Your task to perform on an android device: search for starred emails in the gmail app Image 0: 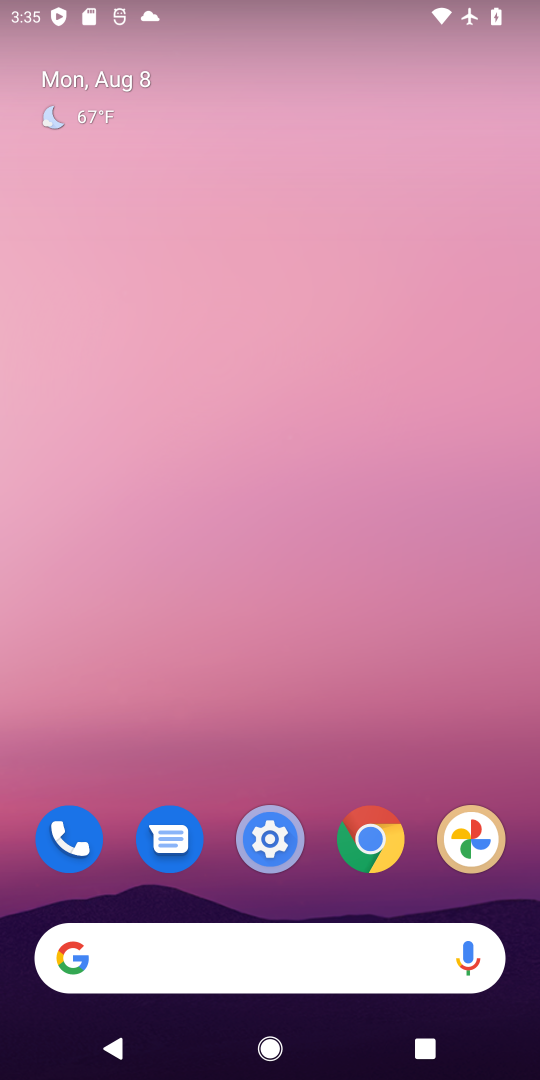
Step 0: press home button
Your task to perform on an android device: search for starred emails in the gmail app Image 1: 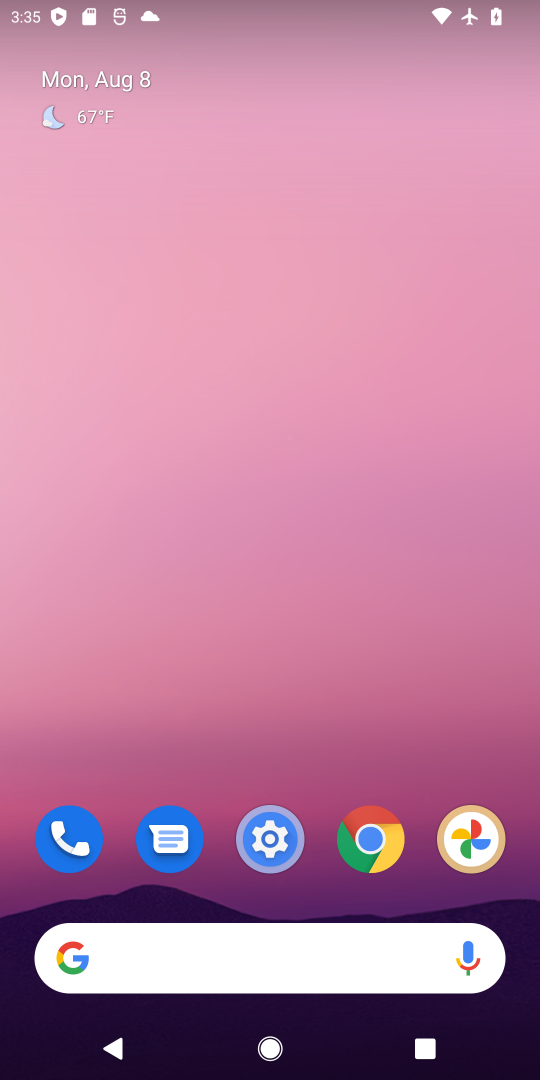
Step 1: drag from (427, 758) to (429, 243)
Your task to perform on an android device: search for starred emails in the gmail app Image 2: 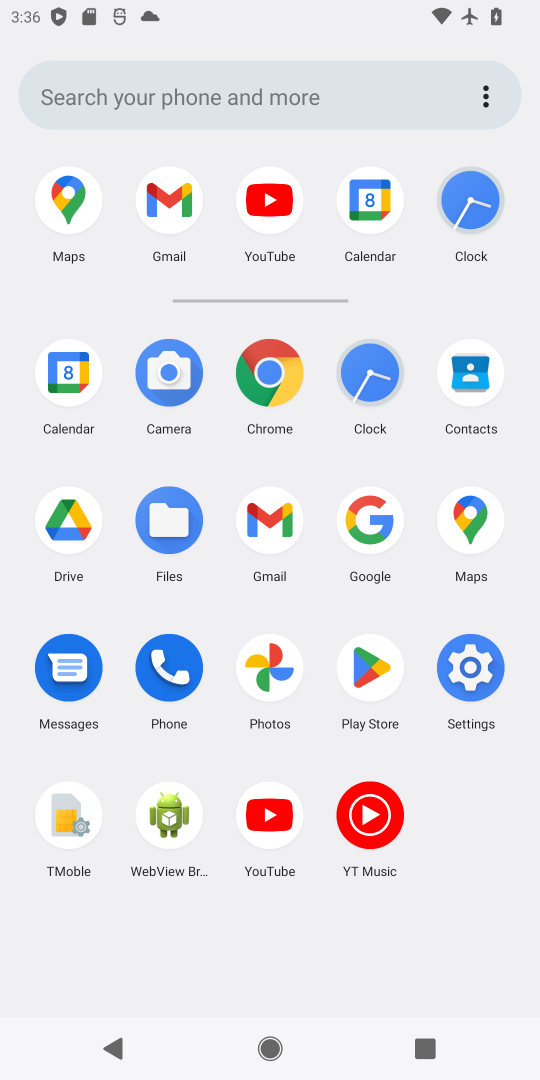
Step 2: click (264, 514)
Your task to perform on an android device: search for starred emails in the gmail app Image 3: 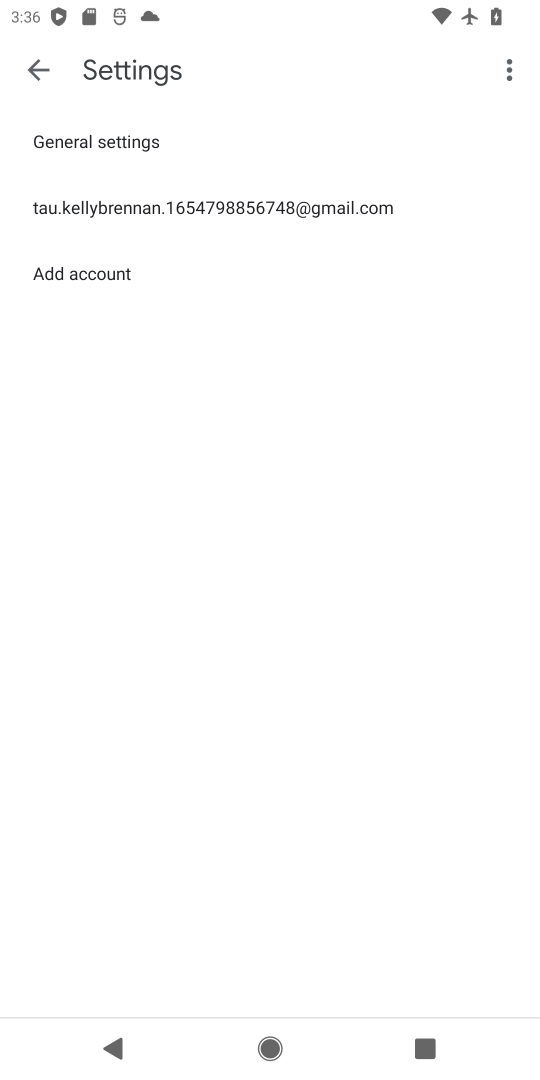
Step 3: press back button
Your task to perform on an android device: search for starred emails in the gmail app Image 4: 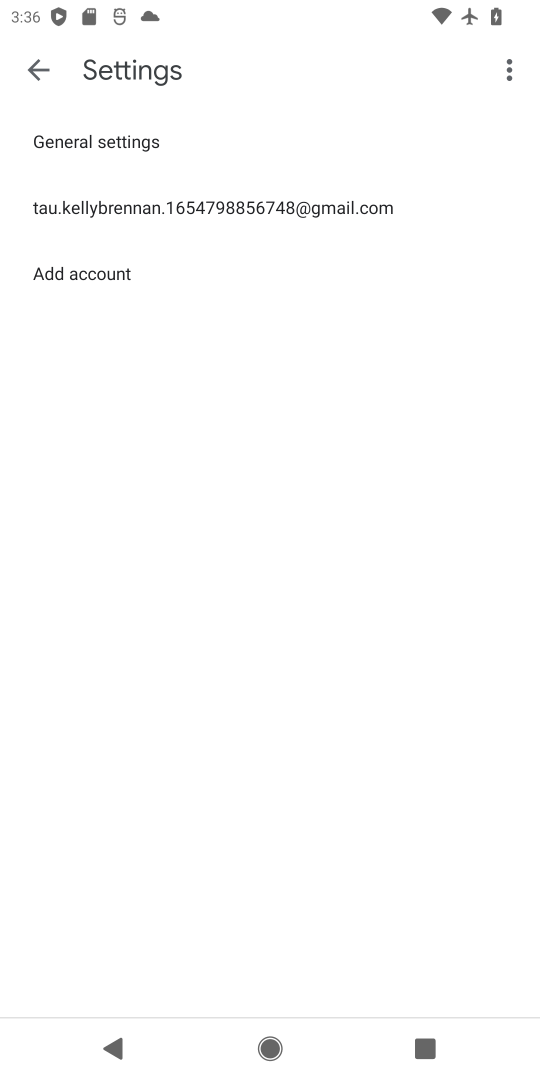
Step 4: press back button
Your task to perform on an android device: search for starred emails in the gmail app Image 5: 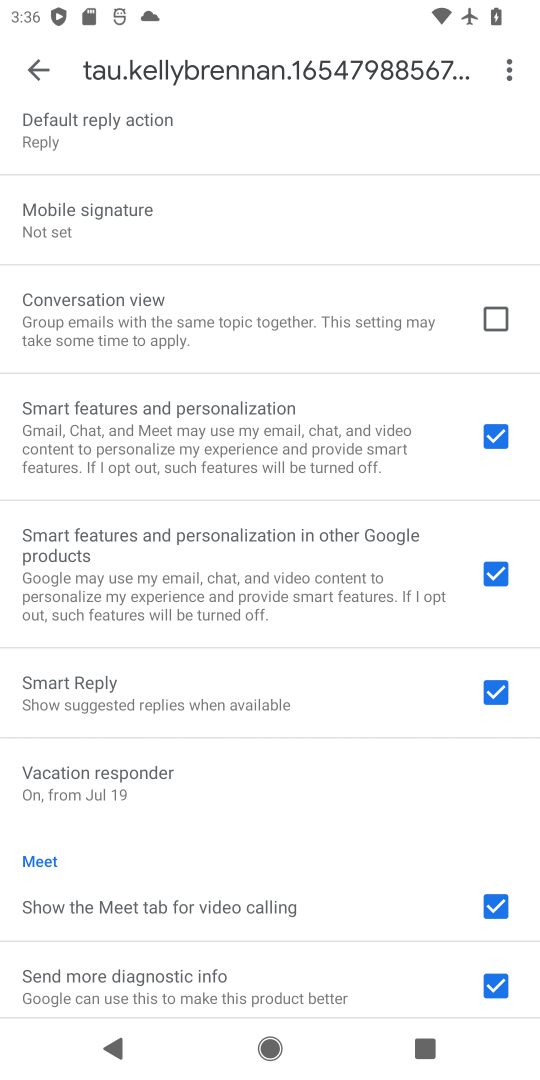
Step 5: press back button
Your task to perform on an android device: search for starred emails in the gmail app Image 6: 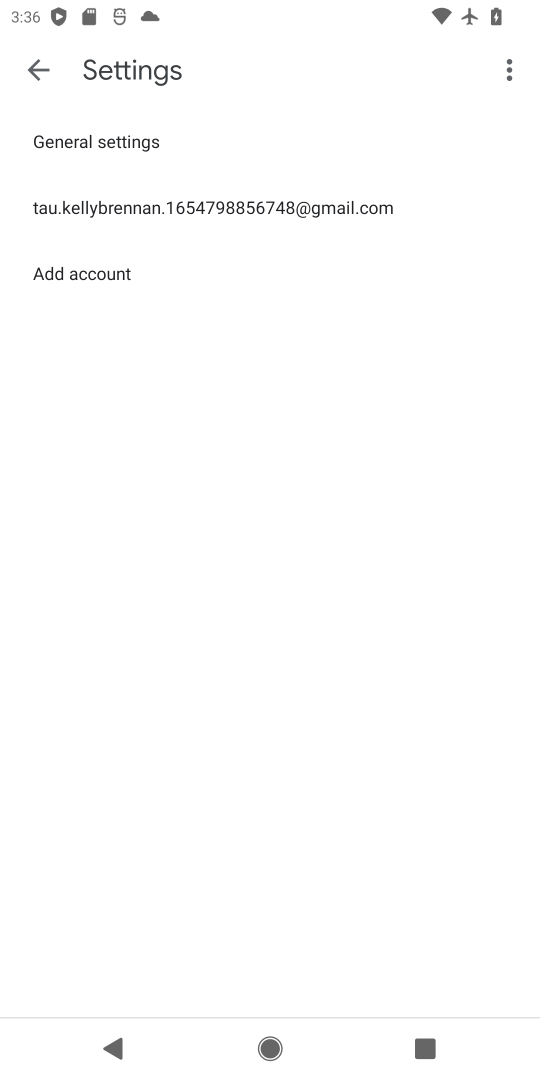
Step 6: press back button
Your task to perform on an android device: search for starred emails in the gmail app Image 7: 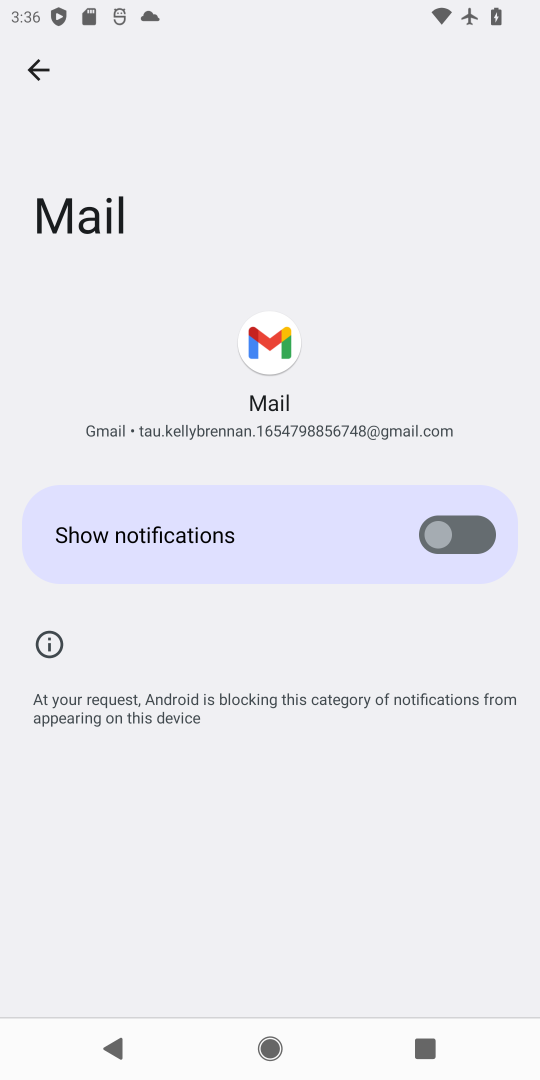
Step 7: press back button
Your task to perform on an android device: search for starred emails in the gmail app Image 8: 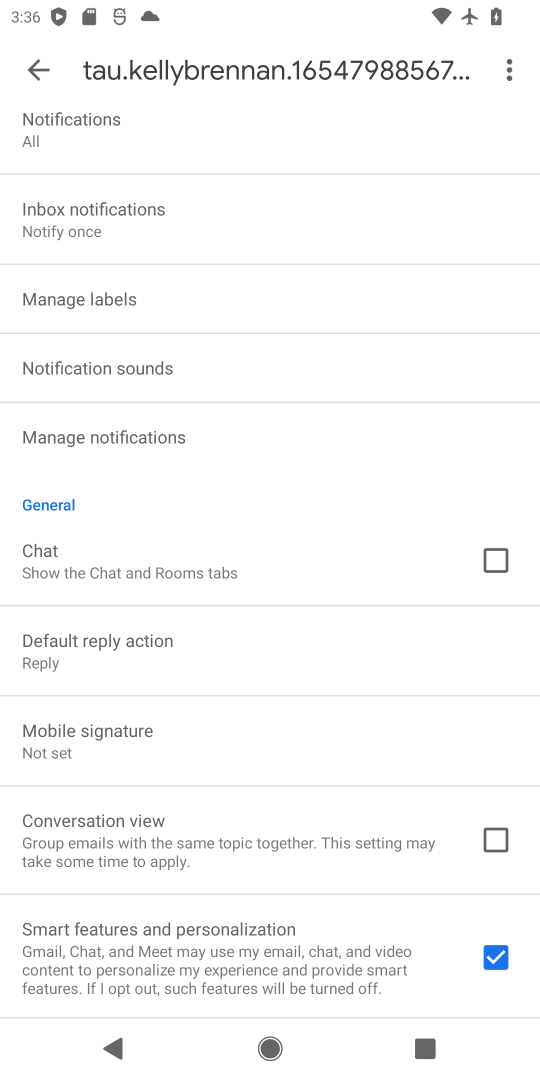
Step 8: press back button
Your task to perform on an android device: search for starred emails in the gmail app Image 9: 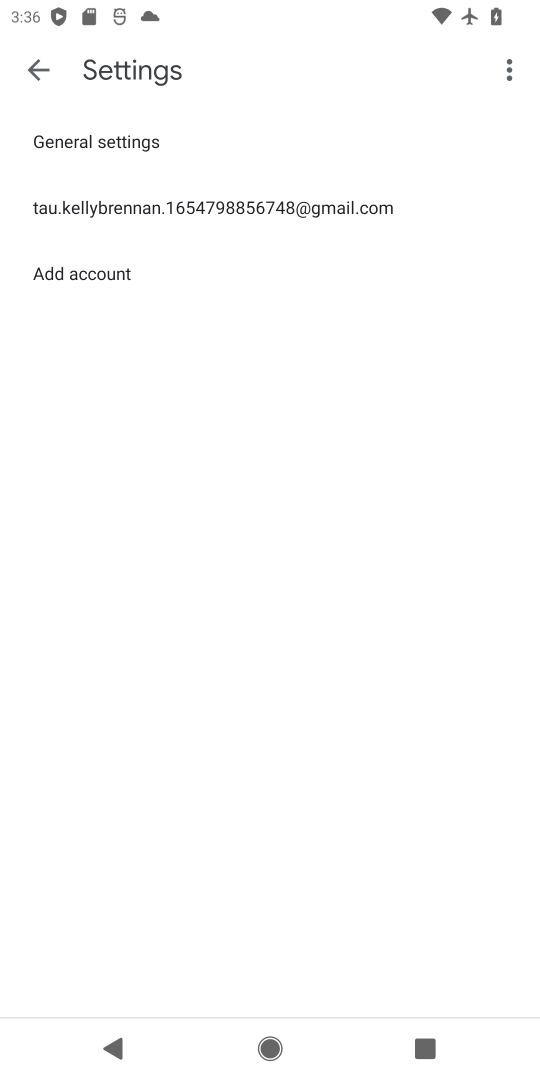
Step 9: press back button
Your task to perform on an android device: search for starred emails in the gmail app Image 10: 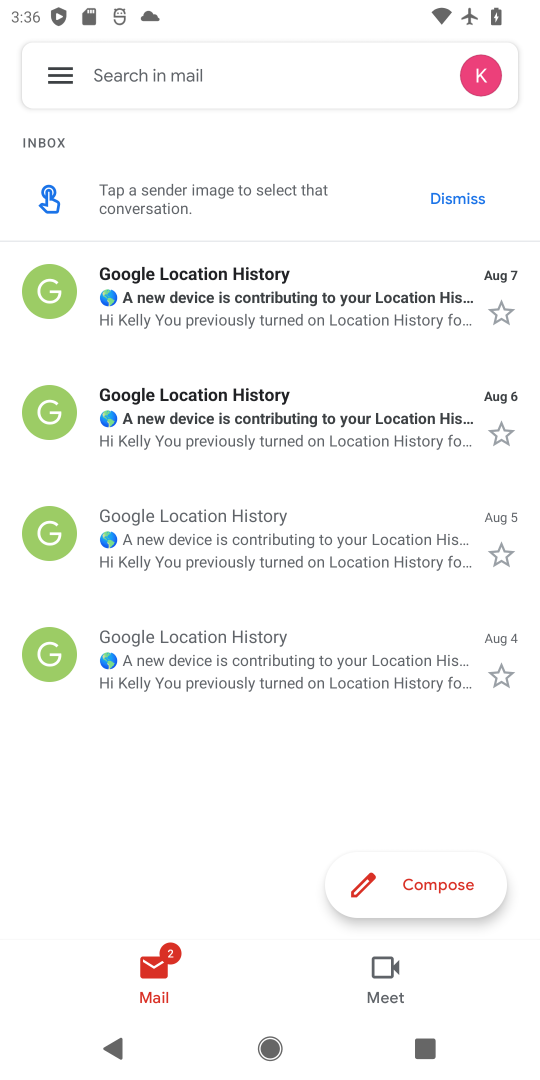
Step 10: click (61, 72)
Your task to perform on an android device: search for starred emails in the gmail app Image 11: 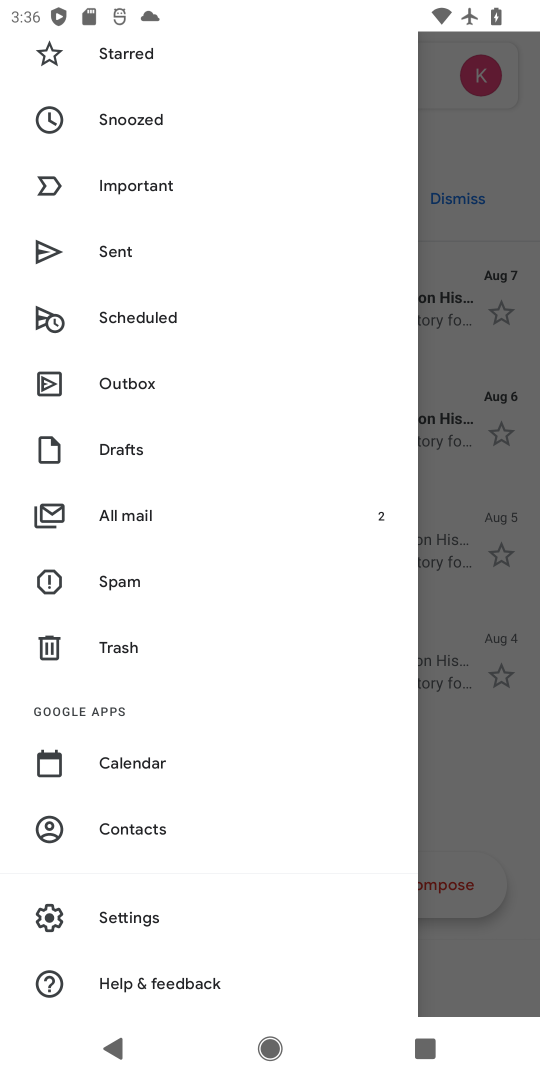
Step 11: drag from (275, 337) to (277, 582)
Your task to perform on an android device: search for starred emails in the gmail app Image 12: 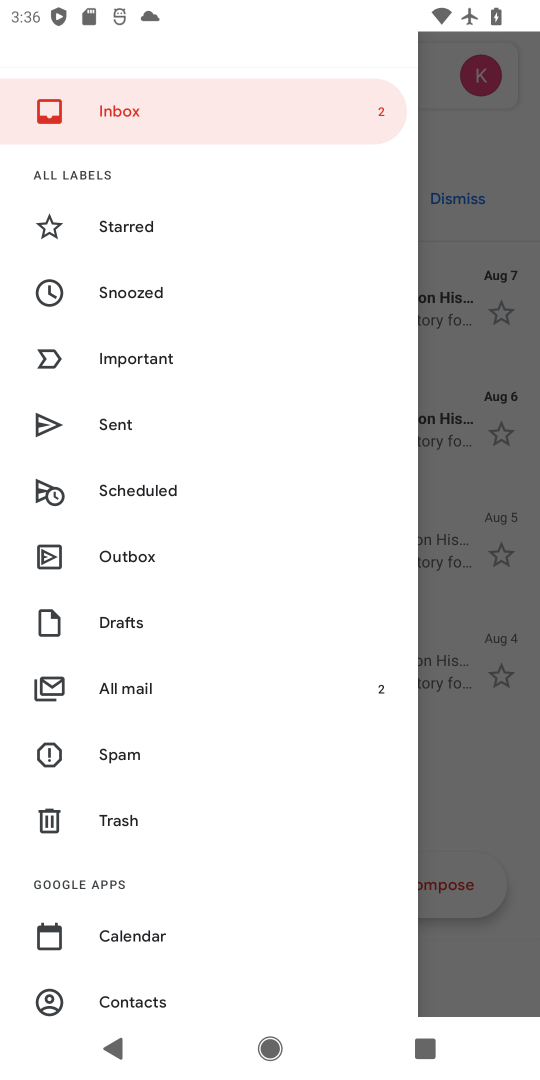
Step 12: drag from (278, 238) to (269, 499)
Your task to perform on an android device: search for starred emails in the gmail app Image 13: 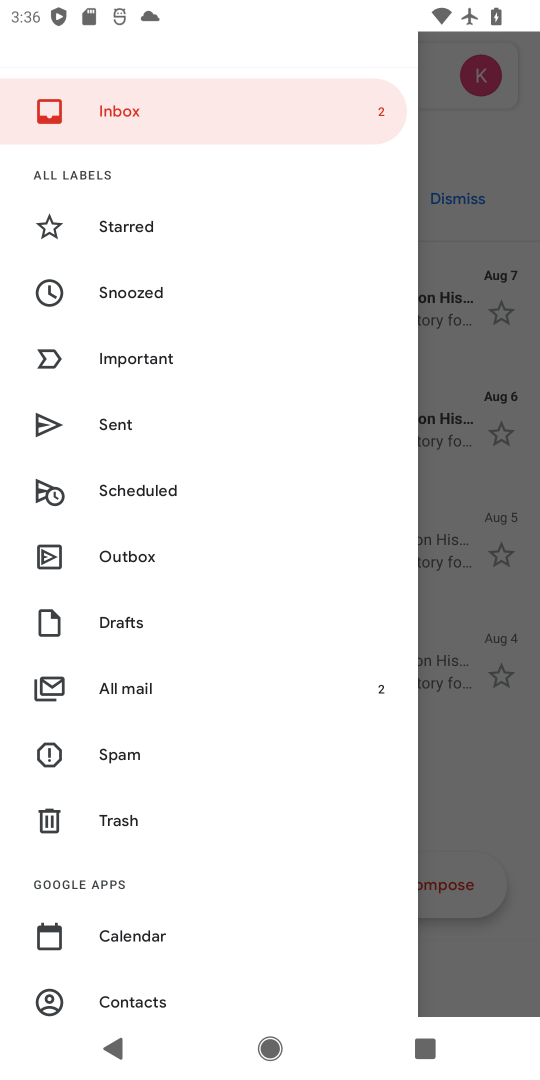
Step 13: click (149, 222)
Your task to perform on an android device: search for starred emails in the gmail app Image 14: 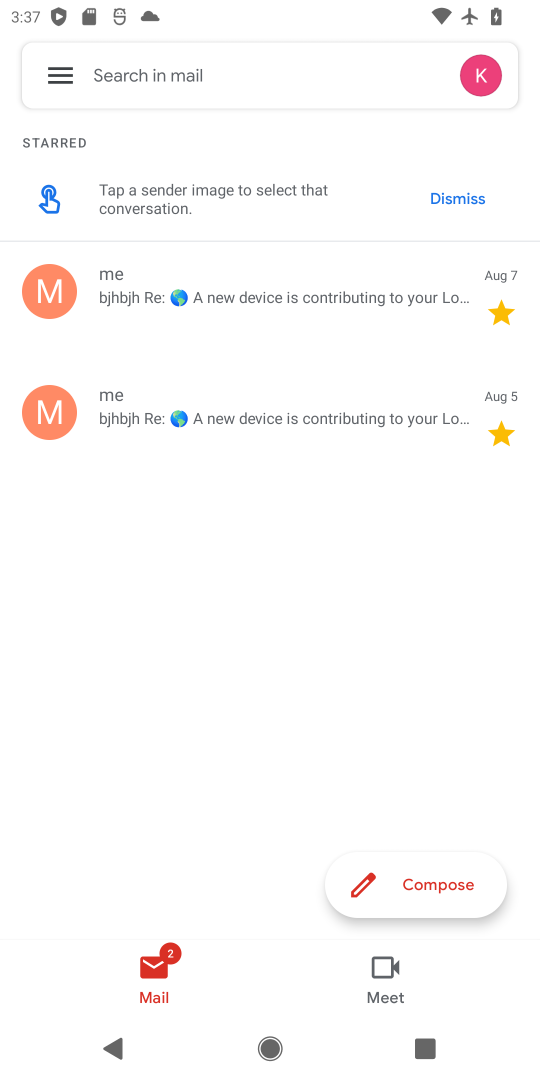
Step 14: task complete